Your task to perform on an android device: turn off wifi Image 0: 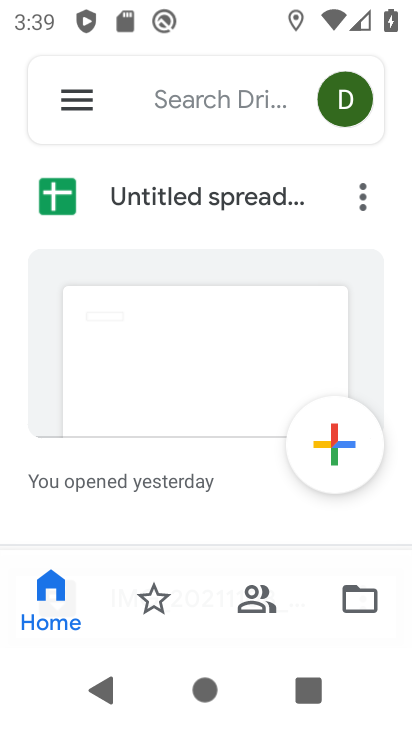
Step 0: press home button
Your task to perform on an android device: turn off wifi Image 1: 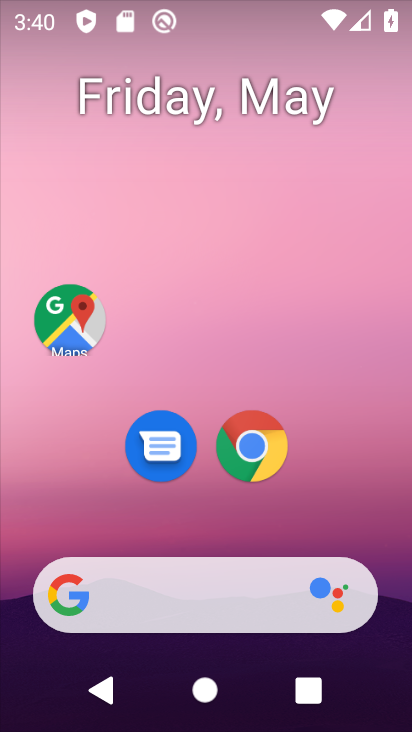
Step 1: drag from (397, 361) to (409, 67)
Your task to perform on an android device: turn off wifi Image 2: 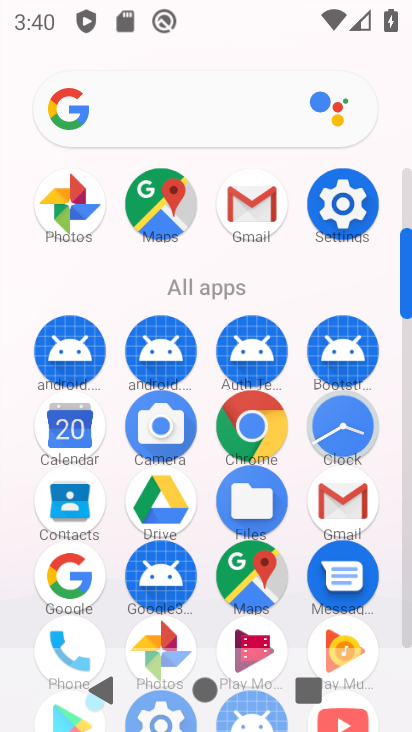
Step 2: click (368, 184)
Your task to perform on an android device: turn off wifi Image 3: 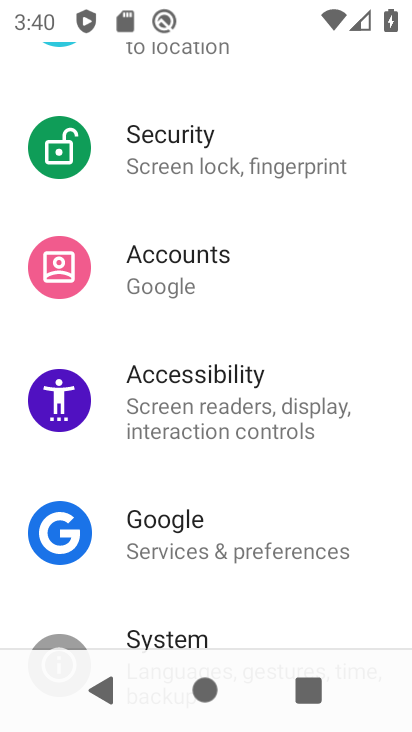
Step 3: drag from (201, 167) to (198, 651)
Your task to perform on an android device: turn off wifi Image 4: 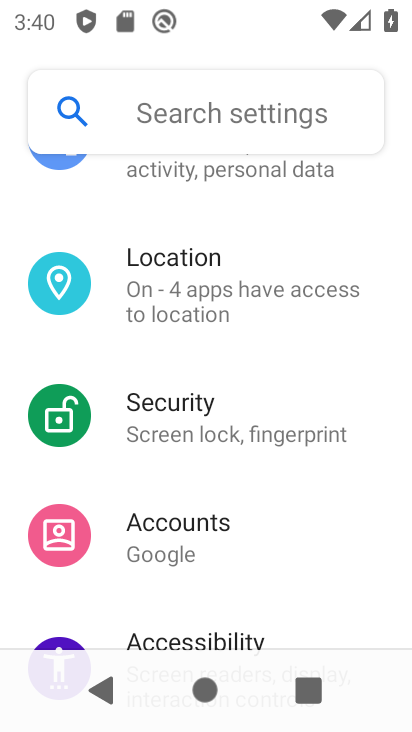
Step 4: drag from (157, 236) to (223, 700)
Your task to perform on an android device: turn off wifi Image 5: 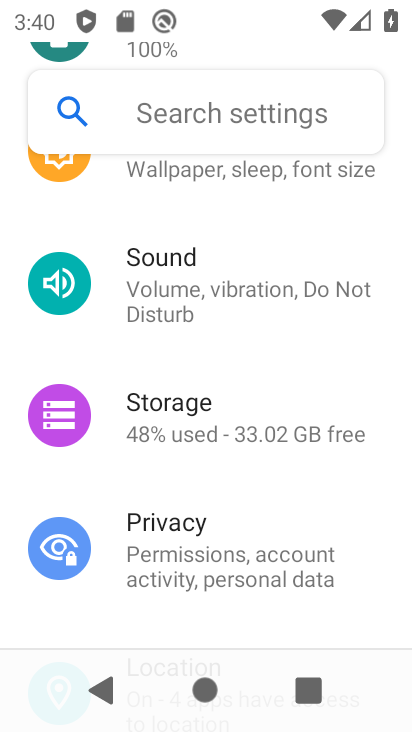
Step 5: drag from (228, 255) to (215, 692)
Your task to perform on an android device: turn off wifi Image 6: 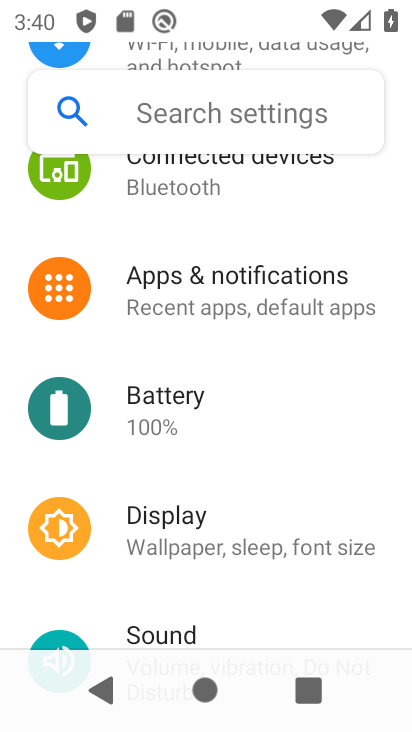
Step 6: drag from (308, 233) to (299, 649)
Your task to perform on an android device: turn off wifi Image 7: 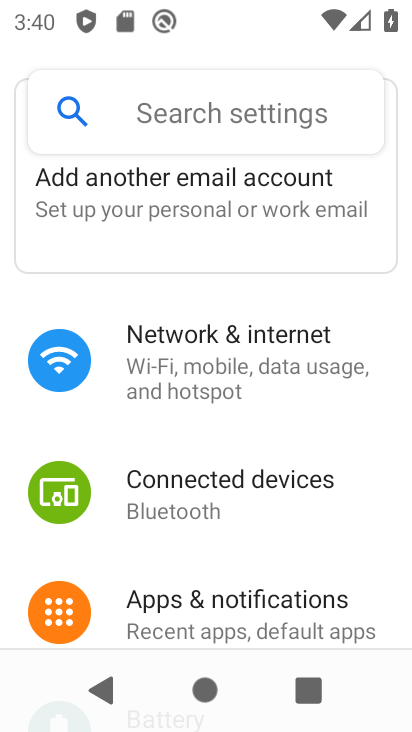
Step 7: click (245, 336)
Your task to perform on an android device: turn off wifi Image 8: 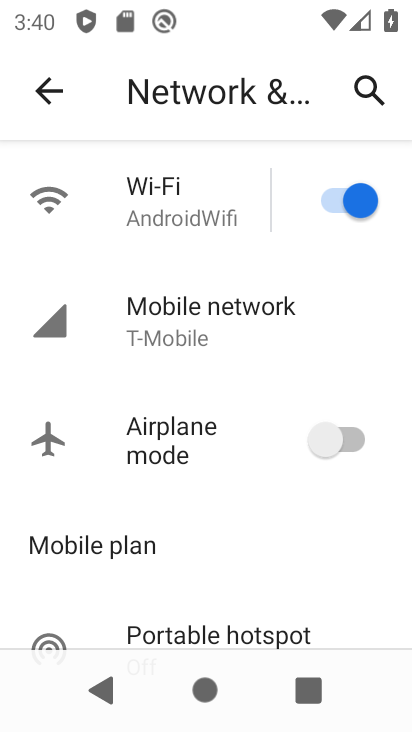
Step 8: click (345, 209)
Your task to perform on an android device: turn off wifi Image 9: 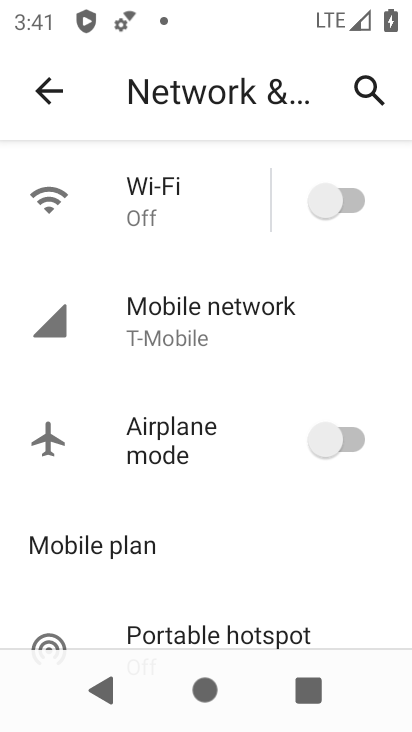
Step 9: task complete